Your task to perform on an android device: add a label to a message in the gmail app Image 0: 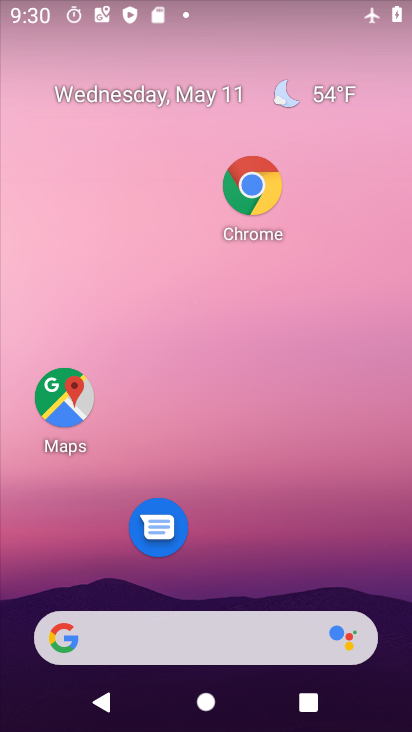
Step 0: drag from (258, 525) to (239, 9)
Your task to perform on an android device: add a label to a message in the gmail app Image 1: 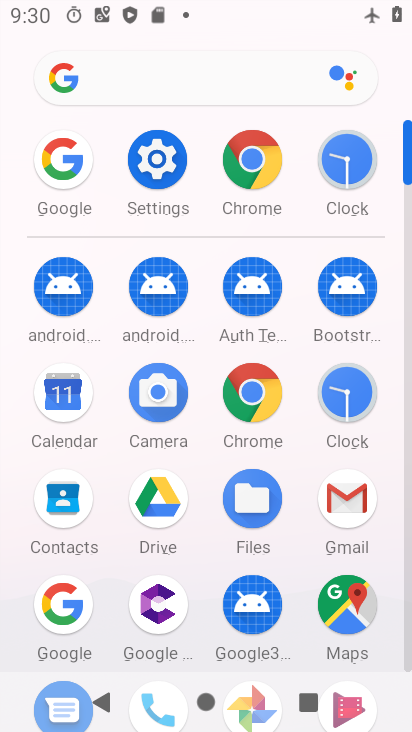
Step 1: click (351, 496)
Your task to perform on an android device: add a label to a message in the gmail app Image 2: 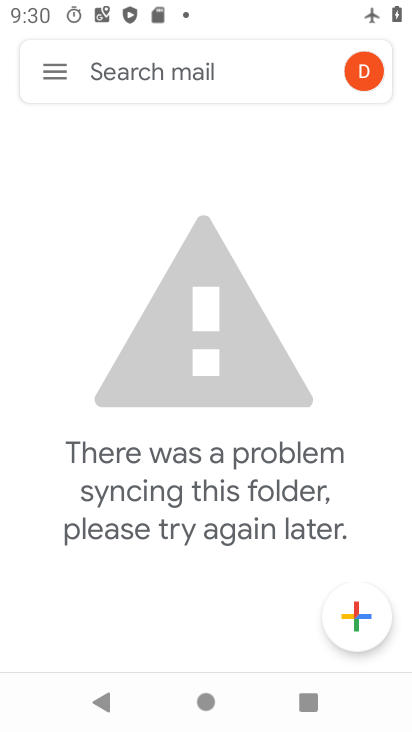
Step 2: task complete